Your task to perform on an android device: Open Chrome and go to settings Image 0: 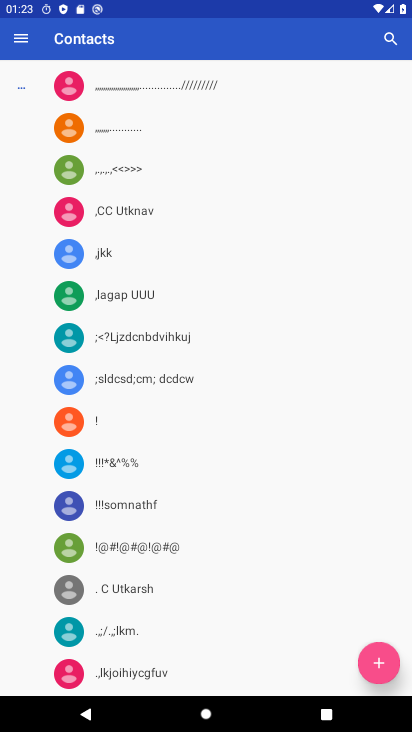
Step 0: press home button
Your task to perform on an android device: Open Chrome and go to settings Image 1: 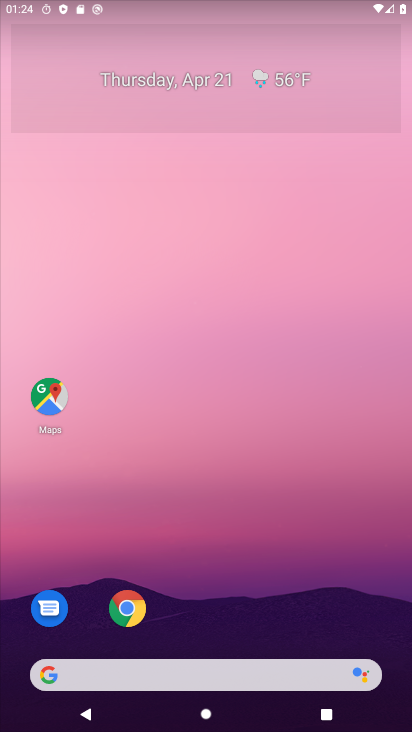
Step 1: click (120, 597)
Your task to perform on an android device: Open Chrome and go to settings Image 2: 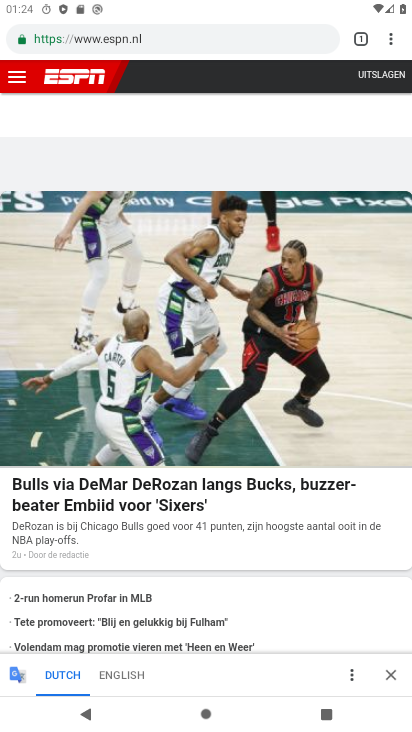
Step 2: click (387, 40)
Your task to perform on an android device: Open Chrome and go to settings Image 3: 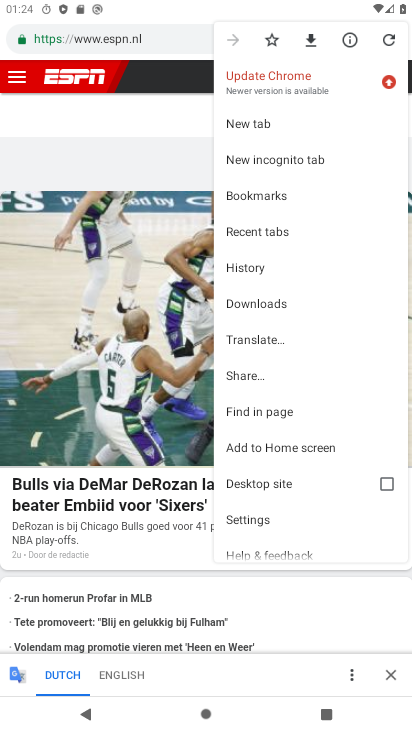
Step 3: click (266, 524)
Your task to perform on an android device: Open Chrome and go to settings Image 4: 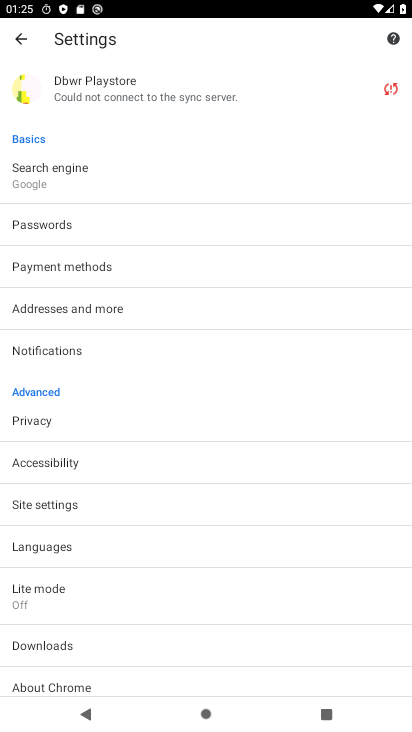
Step 4: task complete